Your task to perform on an android device: Open display settings Image 0: 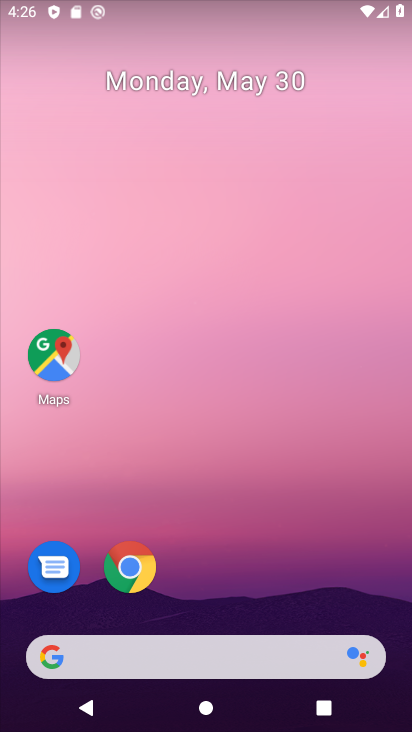
Step 0: drag from (240, 616) to (320, 3)
Your task to perform on an android device: Open display settings Image 1: 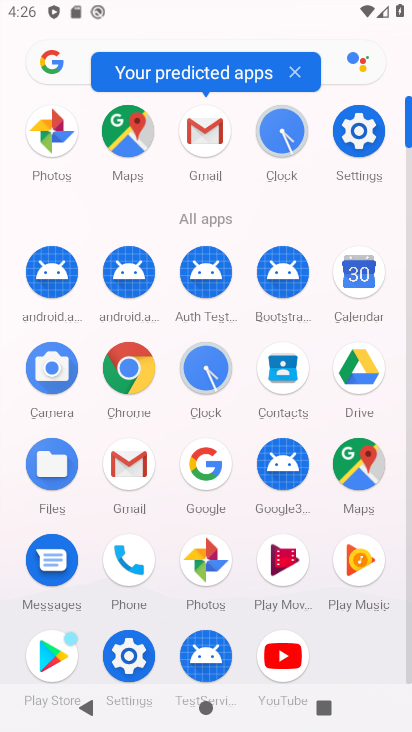
Step 1: click (366, 135)
Your task to perform on an android device: Open display settings Image 2: 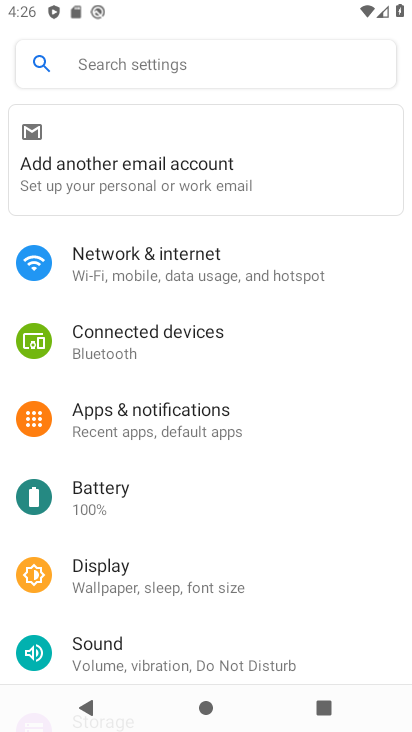
Step 2: click (219, 555)
Your task to perform on an android device: Open display settings Image 3: 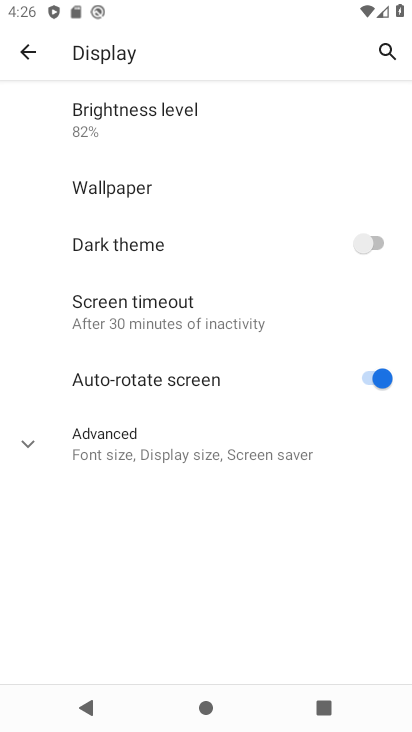
Step 3: task complete